Your task to perform on an android device: turn on javascript in the chrome app Image 0: 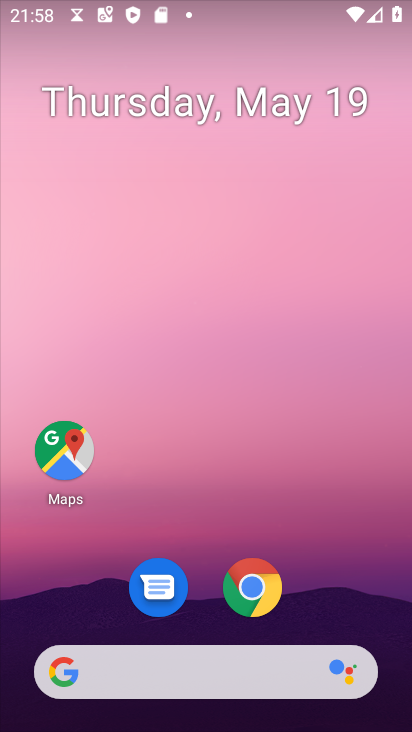
Step 0: click (256, 596)
Your task to perform on an android device: turn on javascript in the chrome app Image 1: 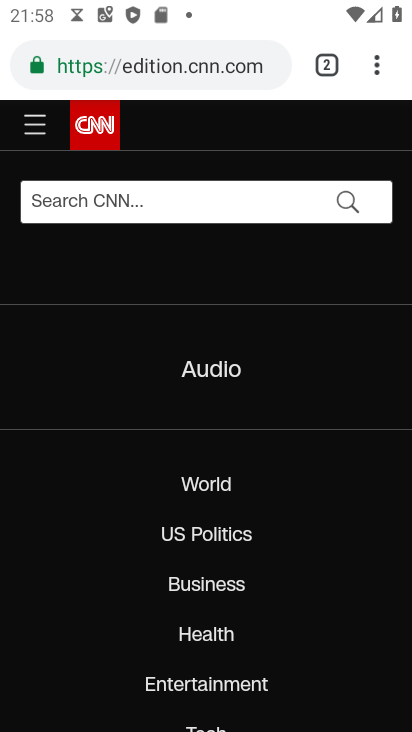
Step 1: drag from (374, 63) to (151, 630)
Your task to perform on an android device: turn on javascript in the chrome app Image 2: 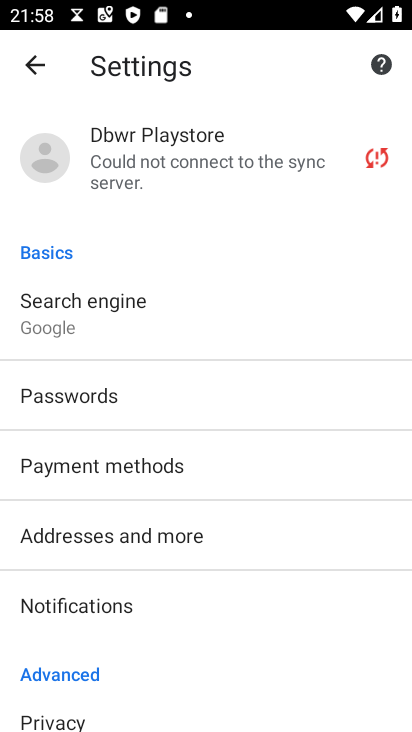
Step 2: drag from (61, 614) to (67, 153)
Your task to perform on an android device: turn on javascript in the chrome app Image 3: 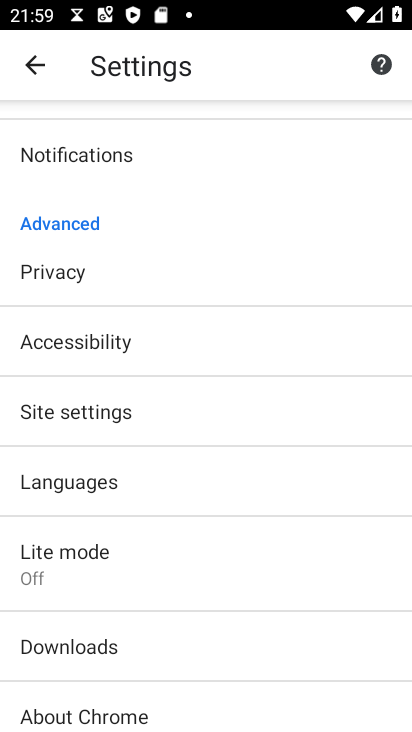
Step 3: click (62, 426)
Your task to perform on an android device: turn on javascript in the chrome app Image 4: 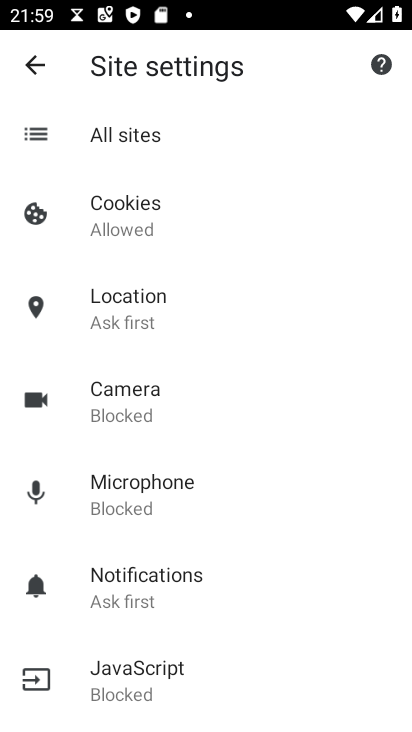
Step 4: click (152, 663)
Your task to perform on an android device: turn on javascript in the chrome app Image 5: 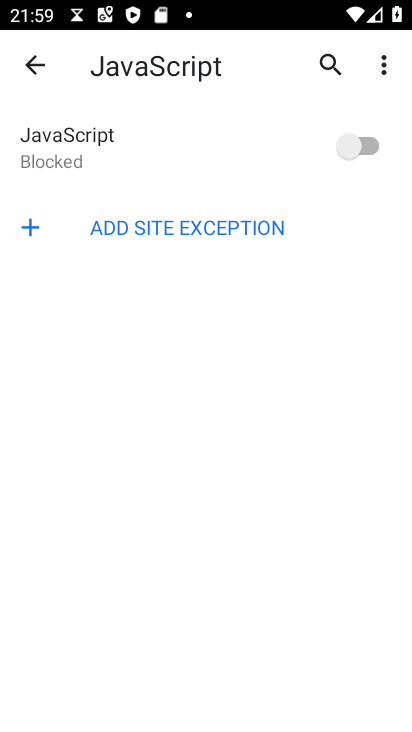
Step 5: click (357, 150)
Your task to perform on an android device: turn on javascript in the chrome app Image 6: 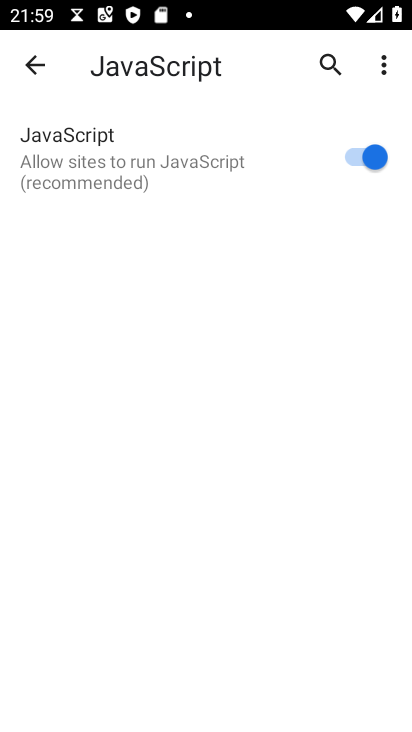
Step 6: task complete